Your task to perform on an android device: check google app version Image 0: 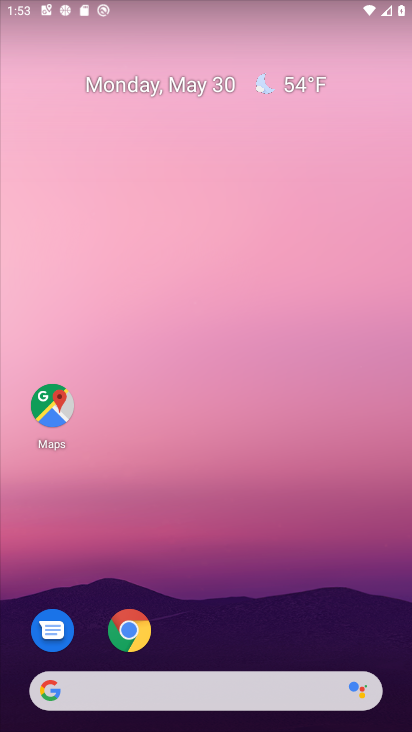
Step 0: press home button
Your task to perform on an android device: check google app version Image 1: 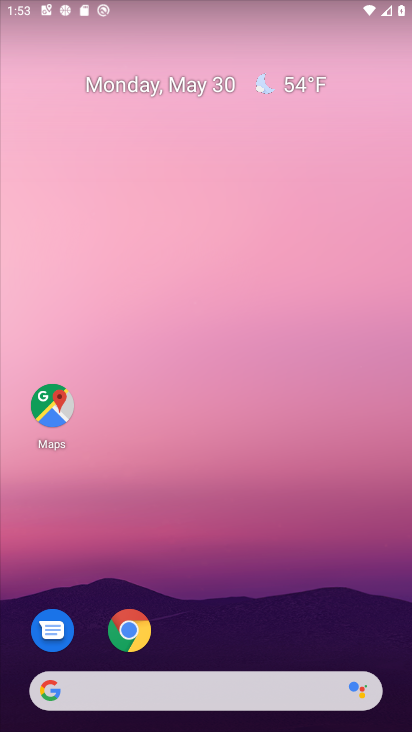
Step 1: drag from (141, 703) to (301, 137)
Your task to perform on an android device: check google app version Image 2: 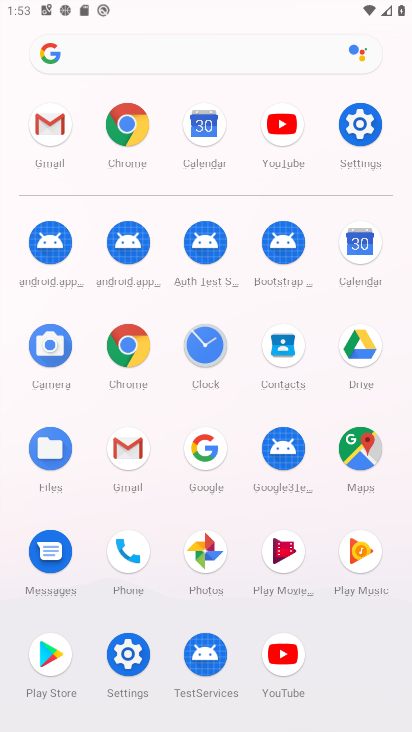
Step 2: click (211, 450)
Your task to perform on an android device: check google app version Image 3: 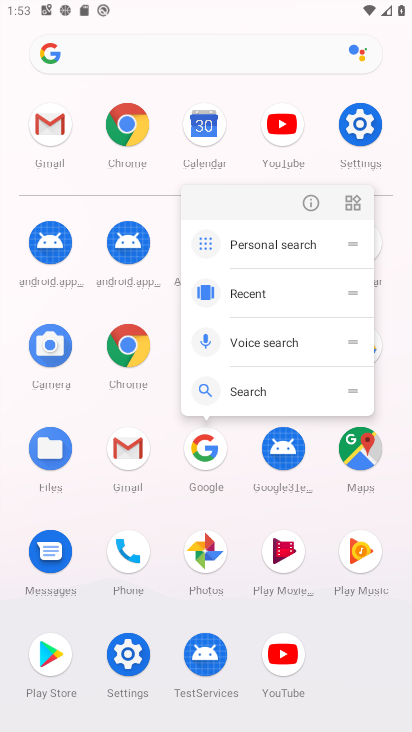
Step 3: click (307, 206)
Your task to perform on an android device: check google app version Image 4: 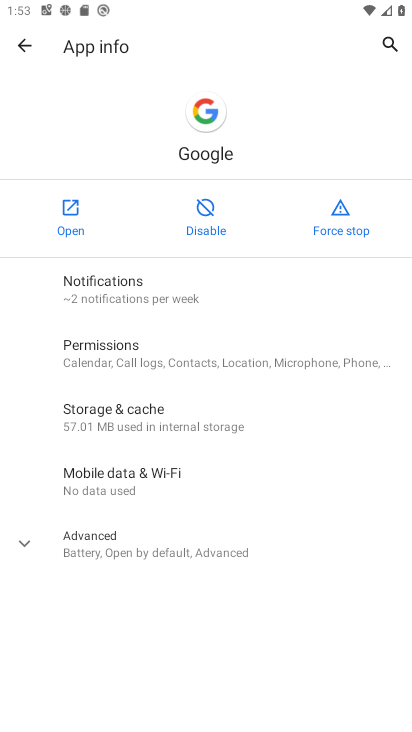
Step 4: click (100, 544)
Your task to perform on an android device: check google app version Image 5: 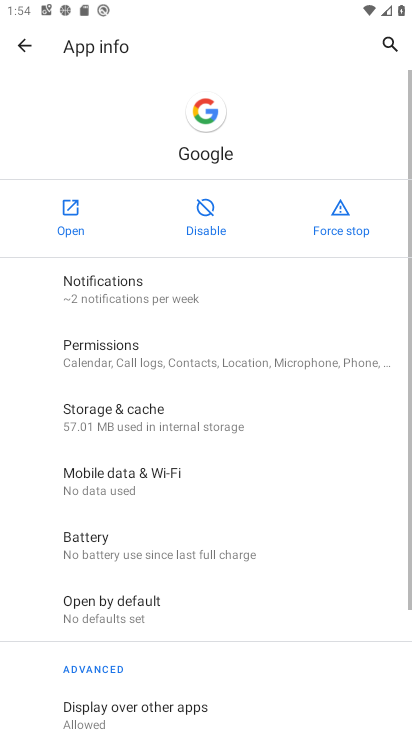
Step 5: task complete